Your task to perform on an android device: install app "AliExpress" Image 0: 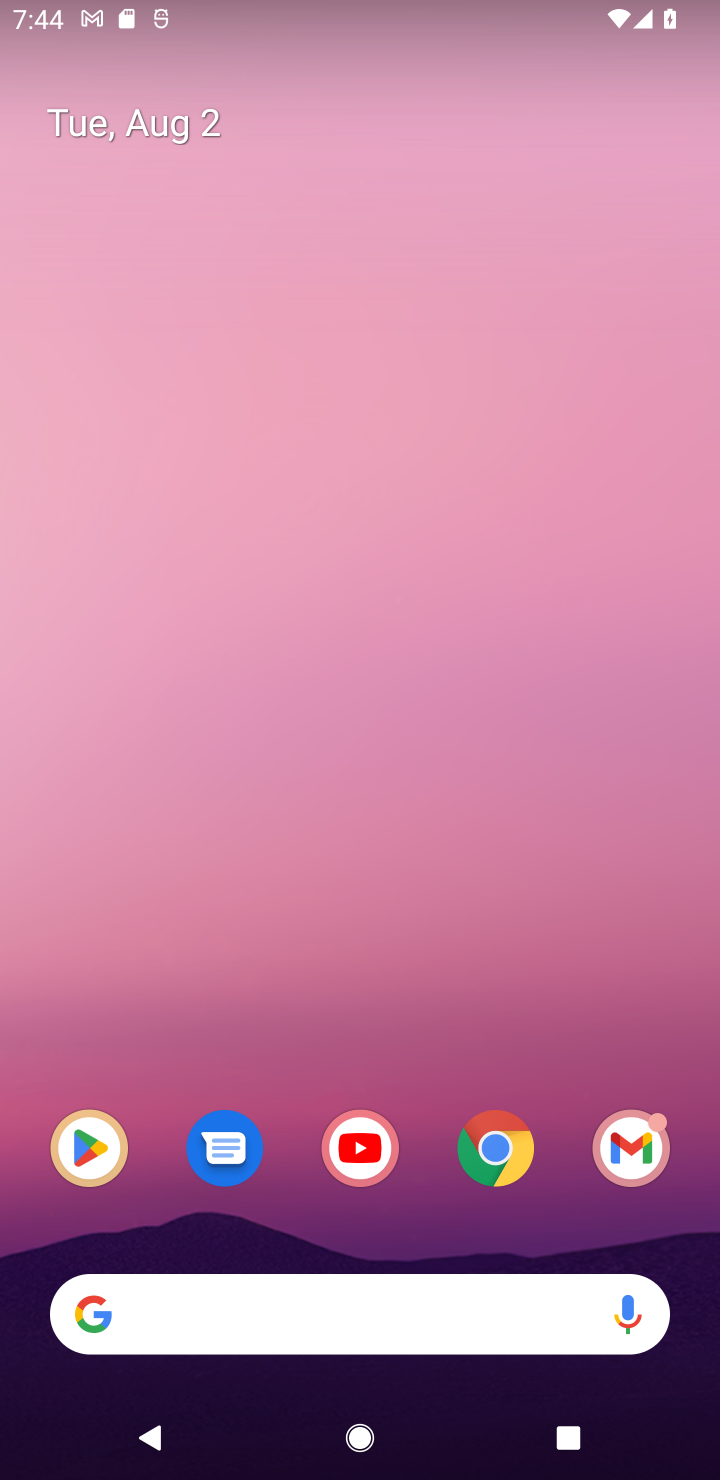
Step 0: drag from (552, 1214) to (310, 160)
Your task to perform on an android device: install app "AliExpress" Image 1: 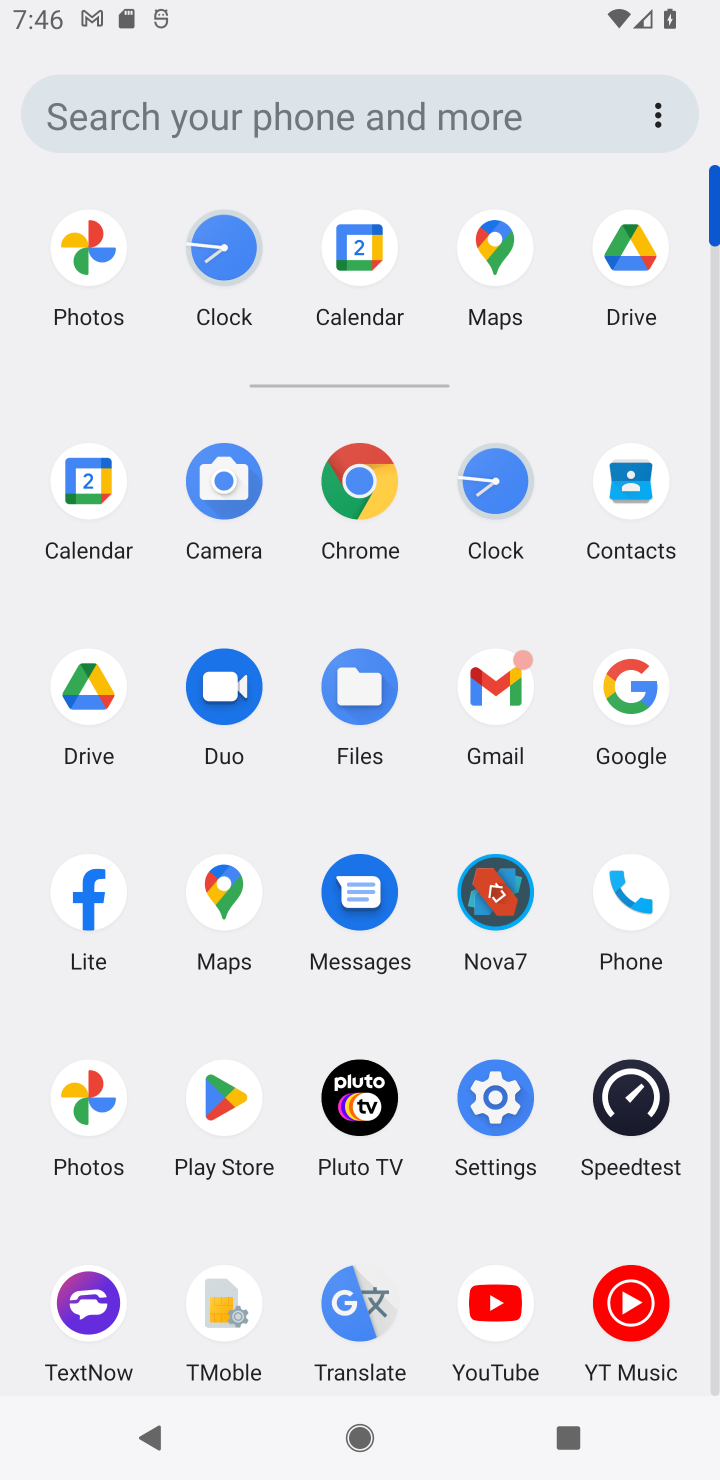
Step 1: click (227, 1091)
Your task to perform on an android device: install app "AliExpress" Image 2: 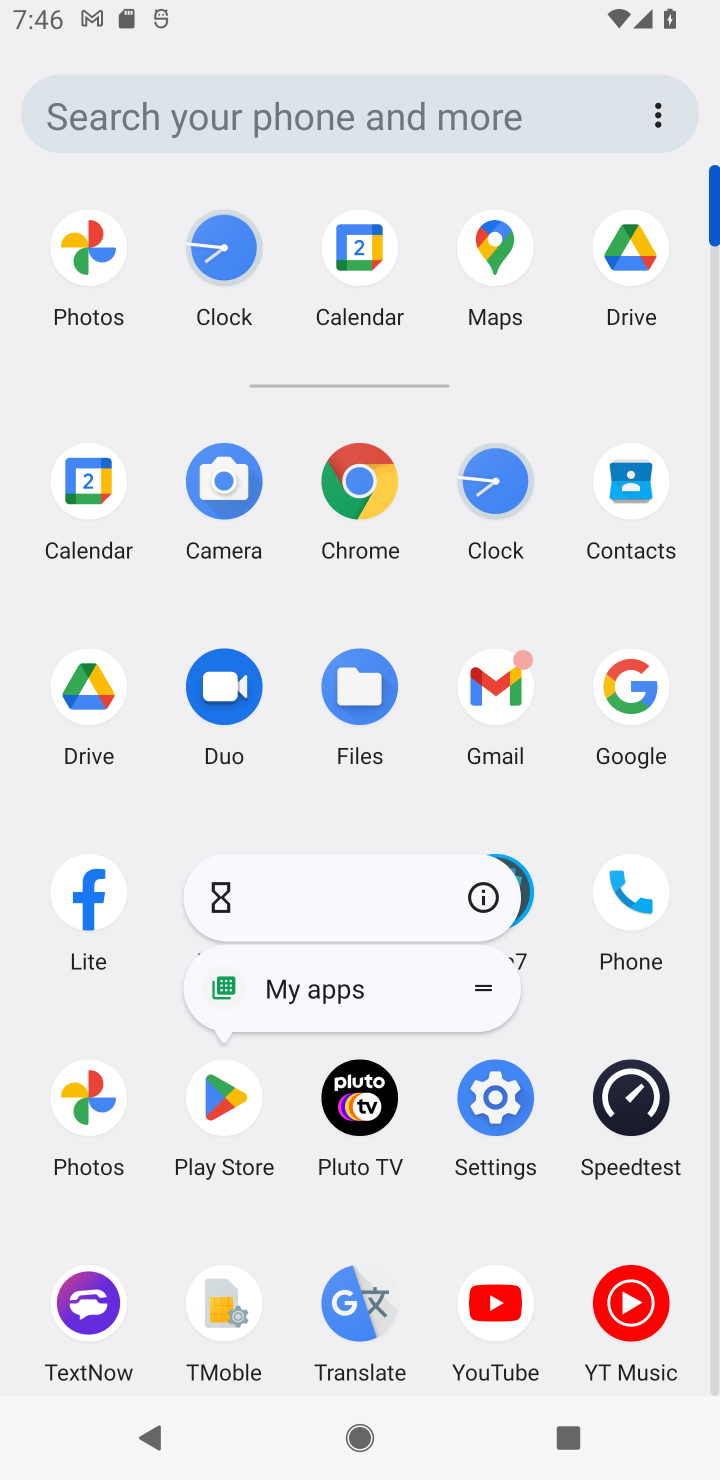
Step 2: click (227, 1091)
Your task to perform on an android device: install app "AliExpress" Image 3: 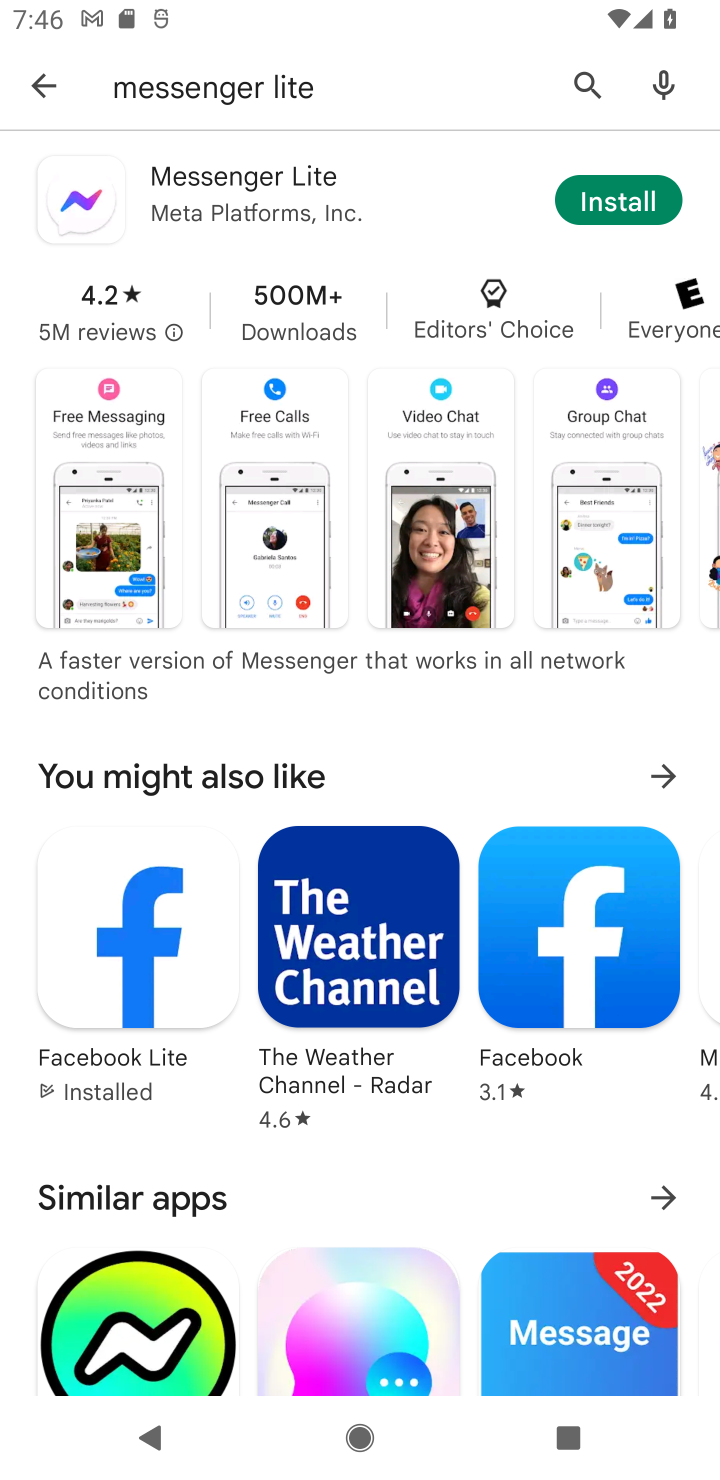
Step 3: press back button
Your task to perform on an android device: install app "AliExpress" Image 4: 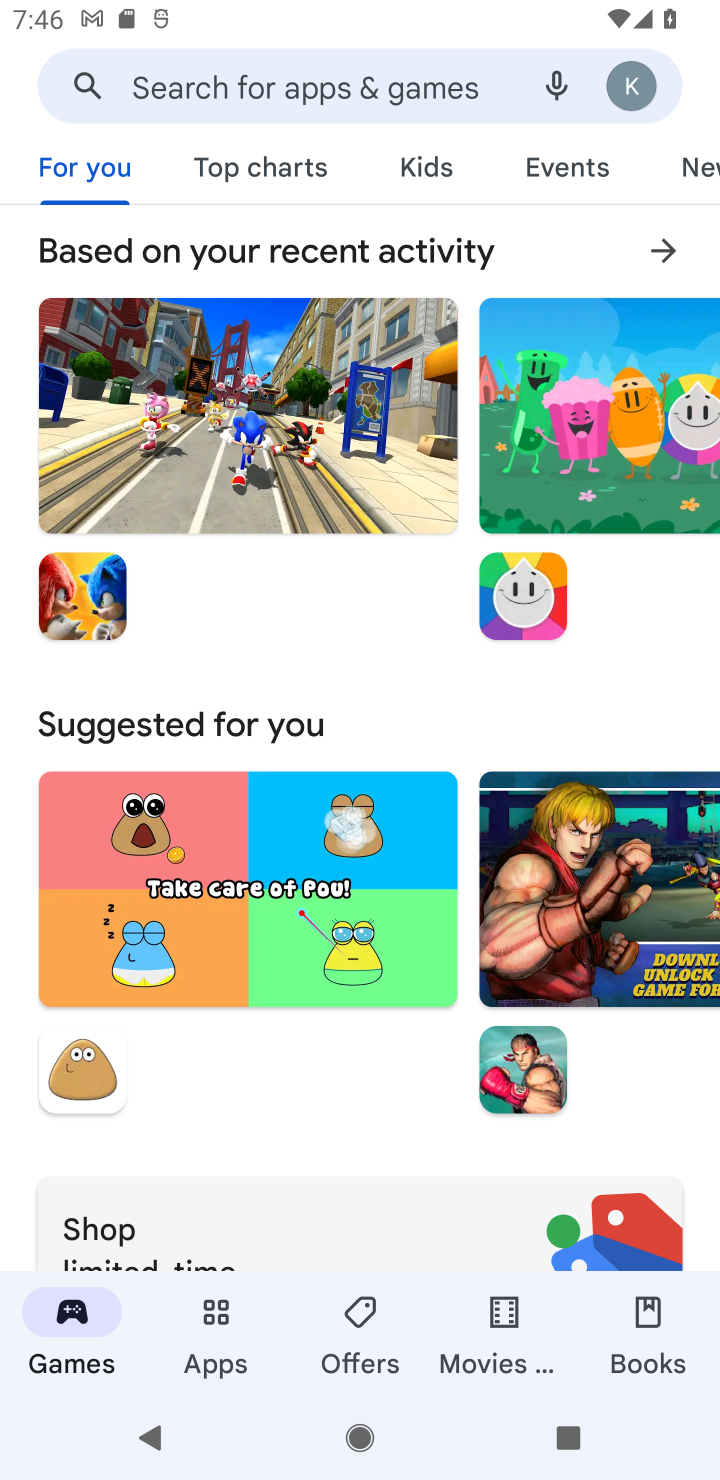
Step 4: click (249, 75)
Your task to perform on an android device: install app "AliExpress" Image 5: 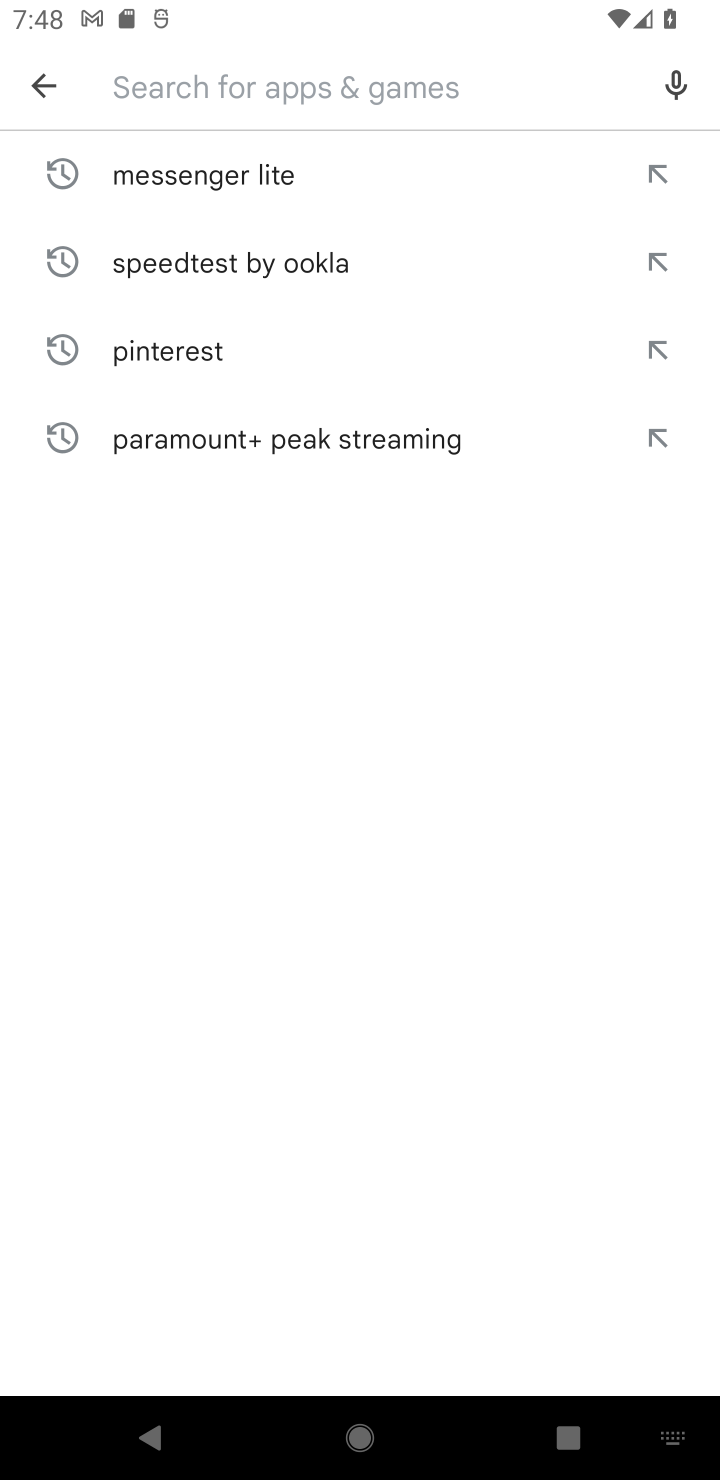
Step 5: type "AliExpress"
Your task to perform on an android device: install app "AliExpress" Image 6: 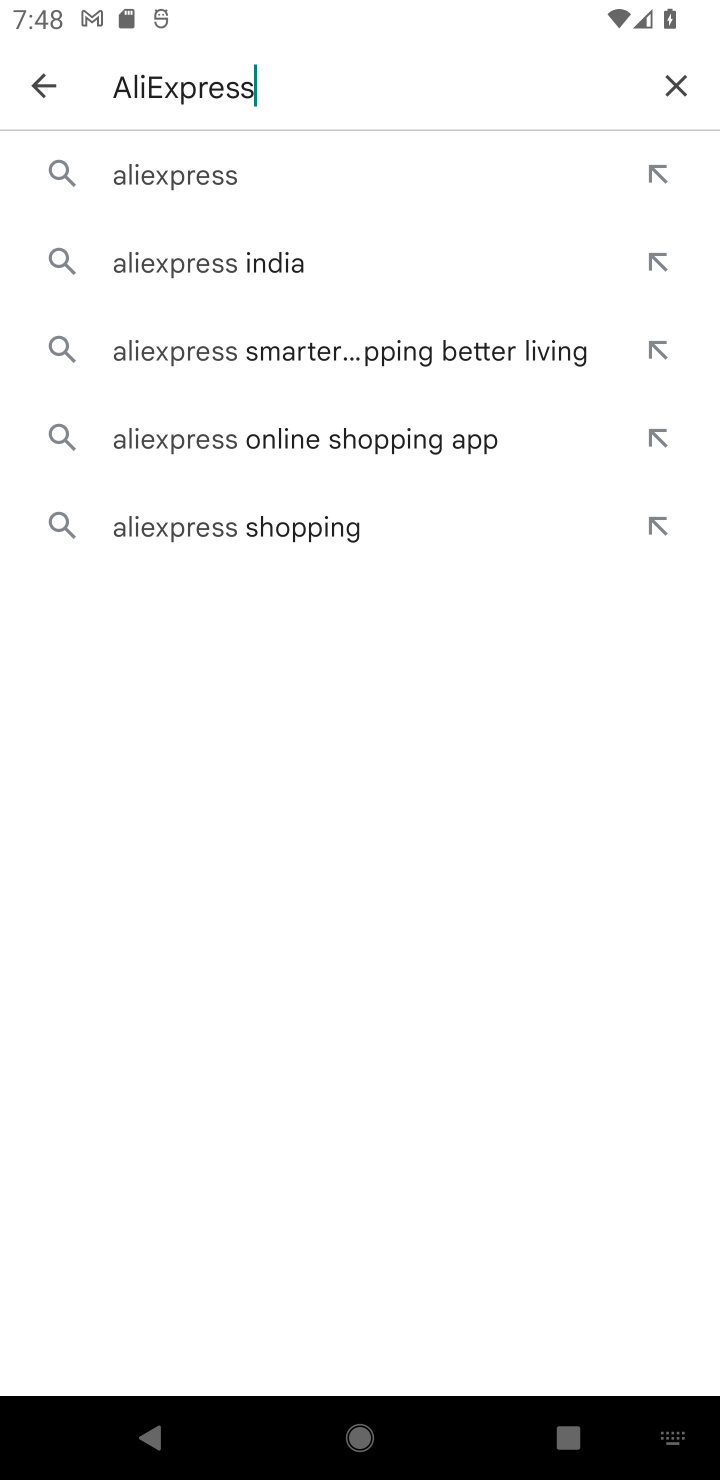
Step 6: click (160, 167)
Your task to perform on an android device: install app "AliExpress" Image 7: 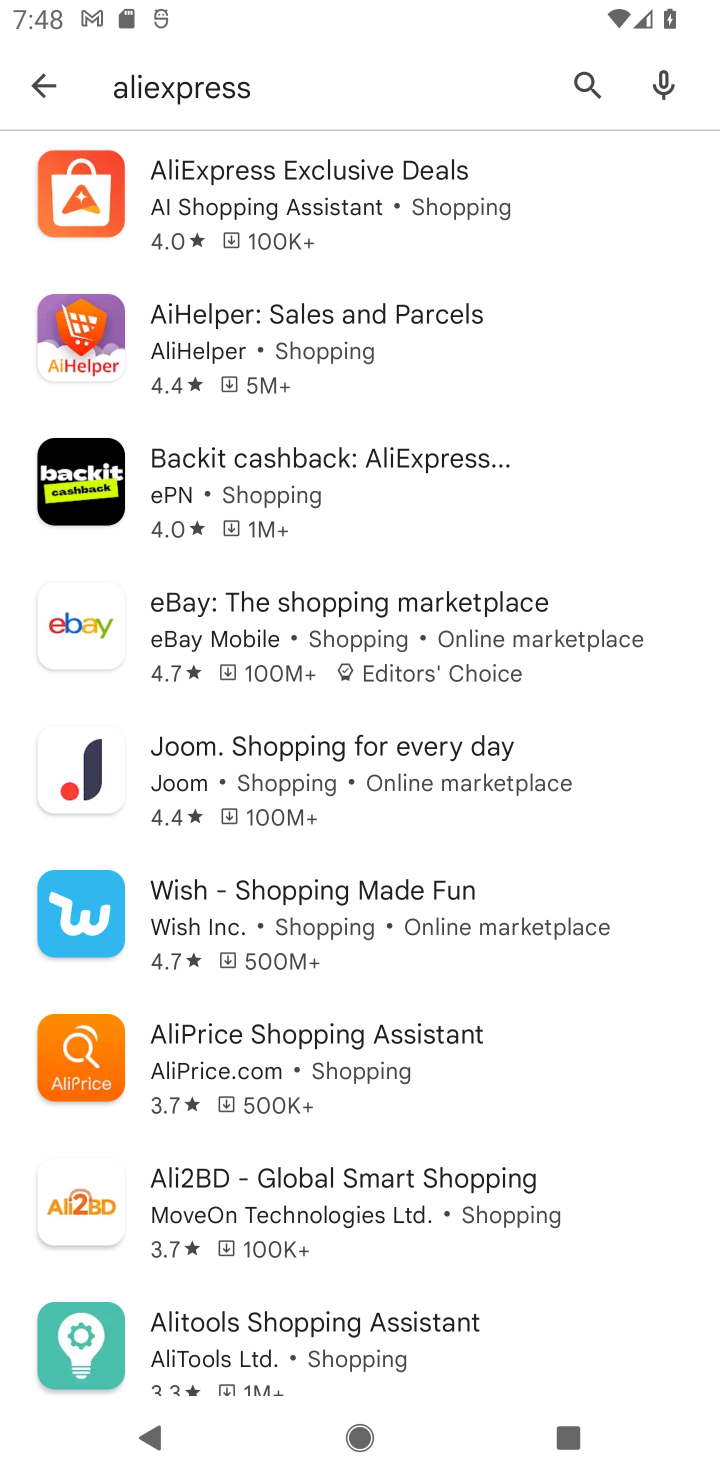
Step 7: click (359, 224)
Your task to perform on an android device: install app "AliExpress" Image 8: 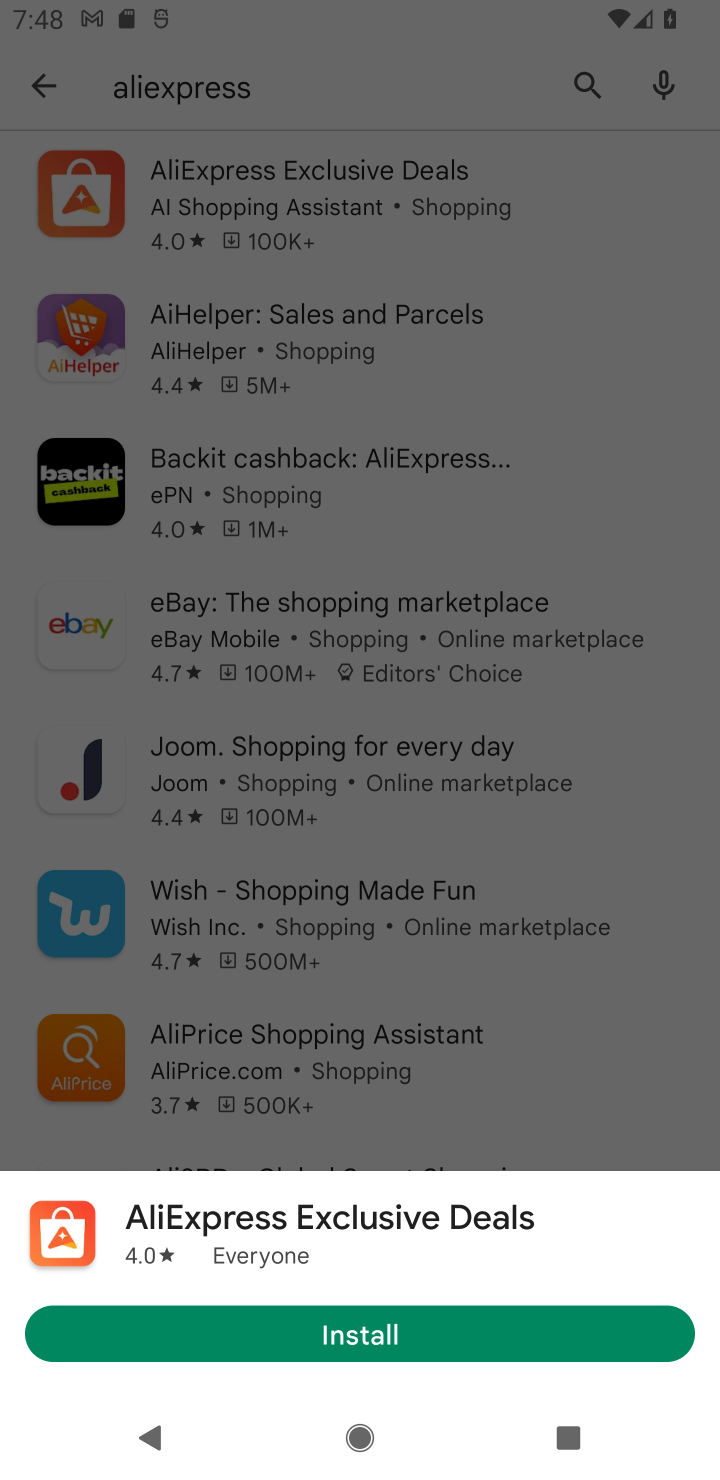
Step 8: click (350, 1340)
Your task to perform on an android device: install app "AliExpress" Image 9: 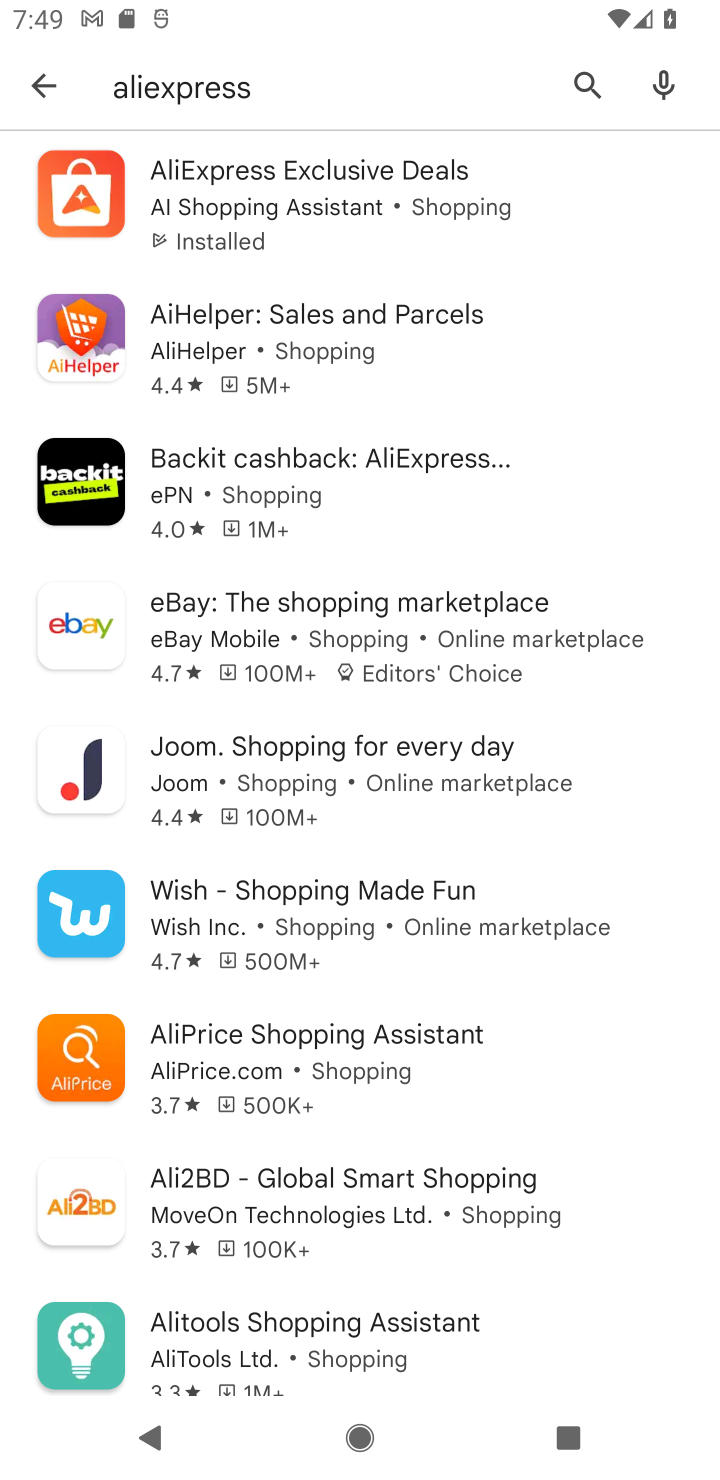
Step 9: task complete